Your task to perform on an android device: Open the phone app and click the voicemail tab. Image 0: 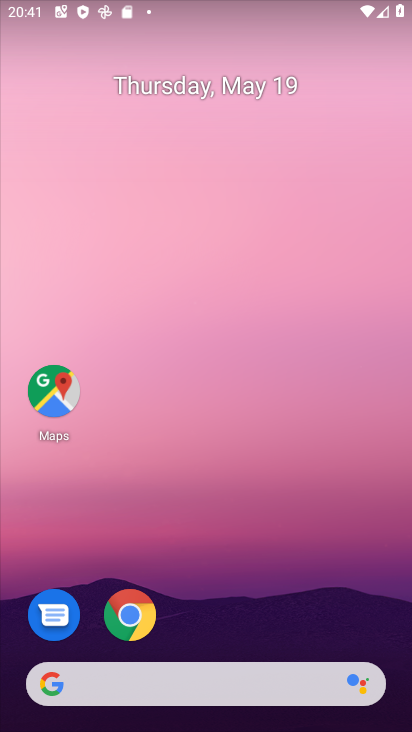
Step 0: drag from (244, 611) to (283, 36)
Your task to perform on an android device: Open the phone app and click the voicemail tab. Image 1: 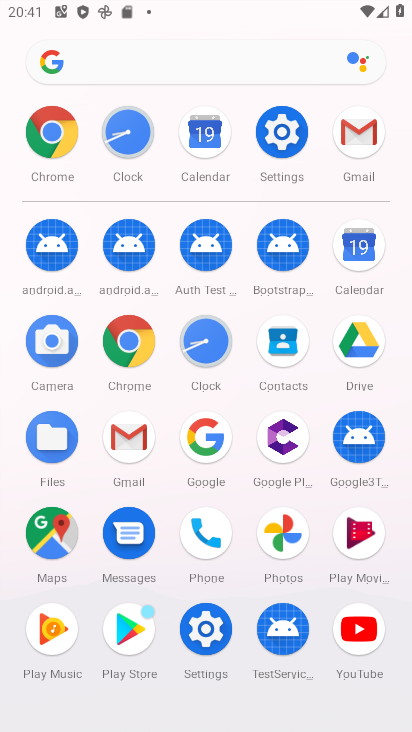
Step 1: click (208, 532)
Your task to perform on an android device: Open the phone app and click the voicemail tab. Image 2: 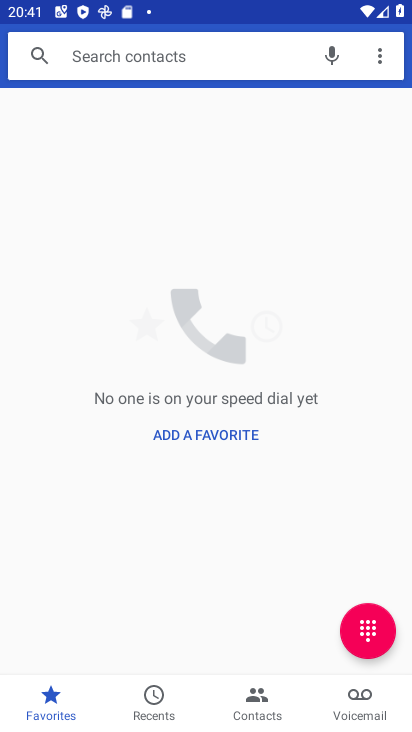
Step 2: click (379, 699)
Your task to perform on an android device: Open the phone app and click the voicemail tab. Image 3: 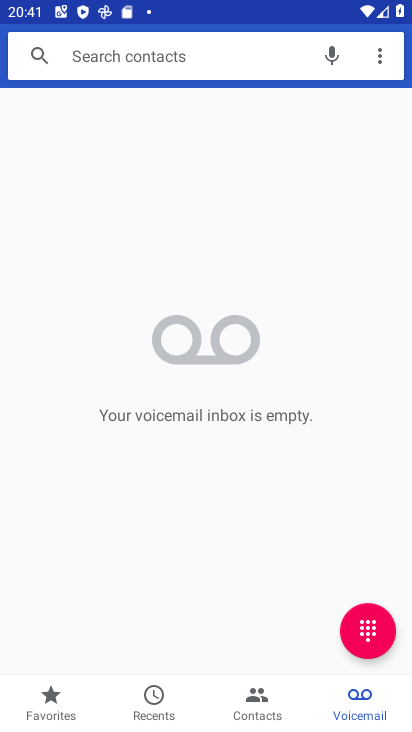
Step 3: task complete